Your task to perform on an android device: What's the weather? Image 0: 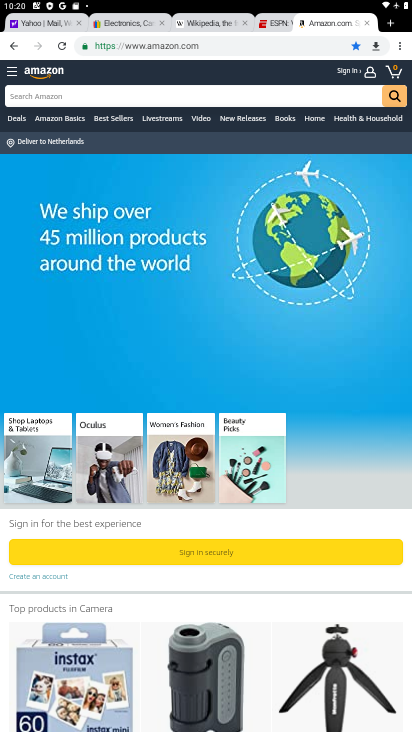
Step 0: click (389, 29)
Your task to perform on an android device: What's the weather? Image 1: 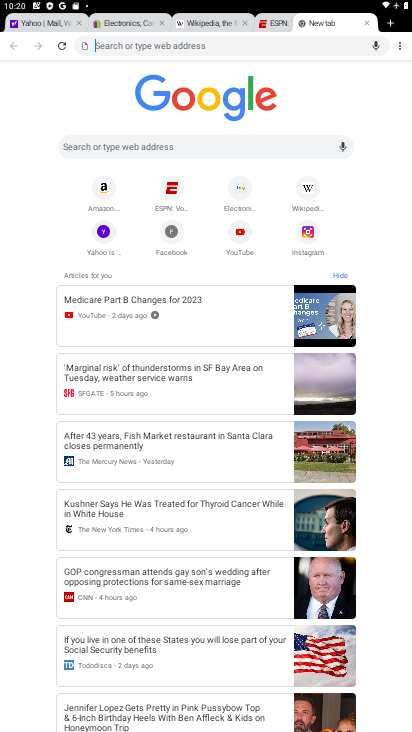
Step 1: click (281, 44)
Your task to perform on an android device: What's the weather? Image 2: 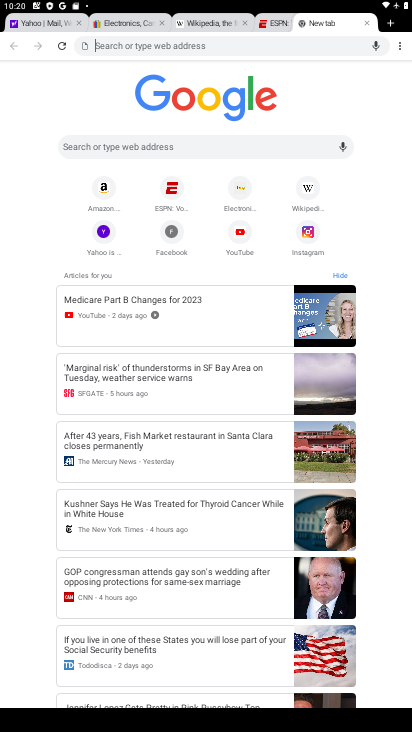
Step 2: type "WEATHER"
Your task to perform on an android device: What's the weather? Image 3: 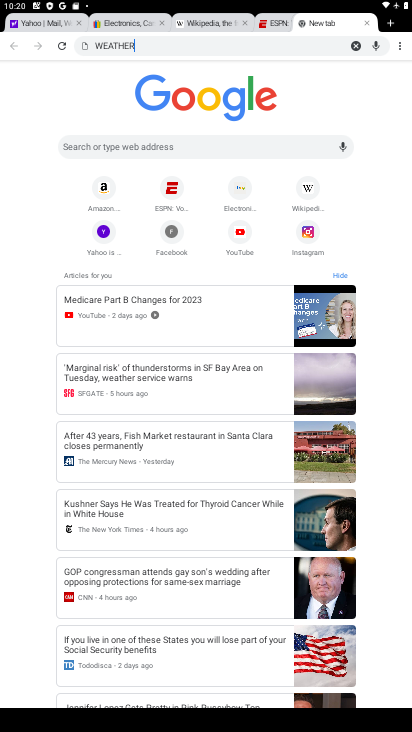
Step 3: task complete